Your task to perform on an android device: turn off priority inbox in the gmail app Image 0: 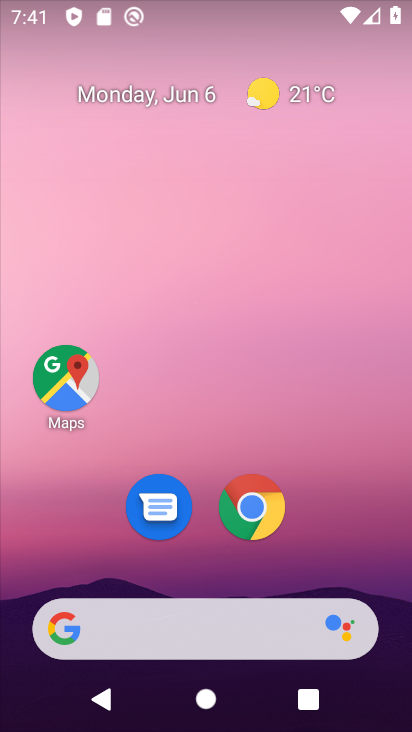
Step 0: drag from (232, 38) to (285, 22)
Your task to perform on an android device: turn off priority inbox in the gmail app Image 1: 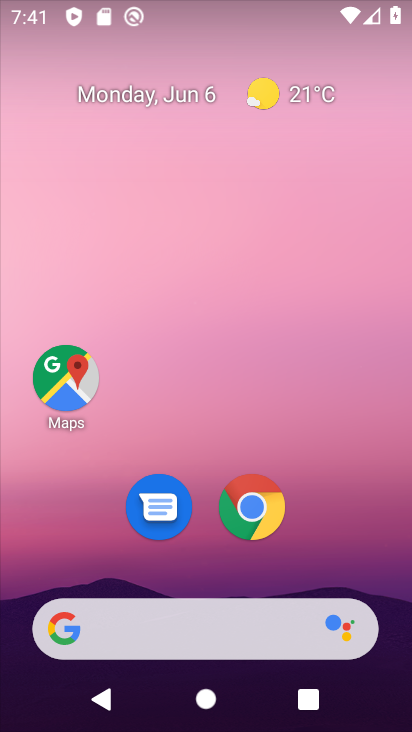
Step 1: drag from (222, 541) to (278, 152)
Your task to perform on an android device: turn off priority inbox in the gmail app Image 2: 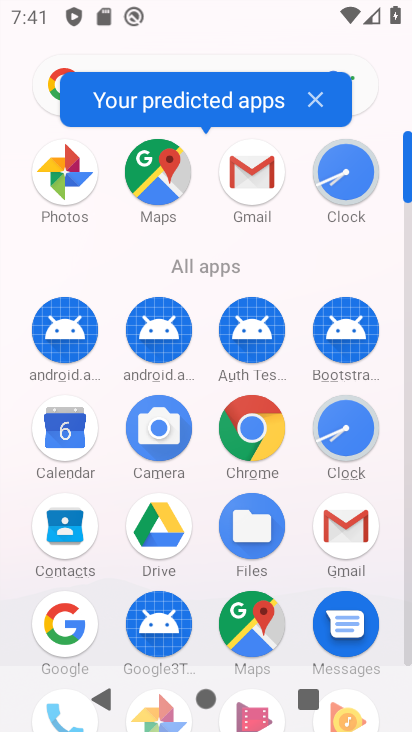
Step 2: click (333, 549)
Your task to perform on an android device: turn off priority inbox in the gmail app Image 3: 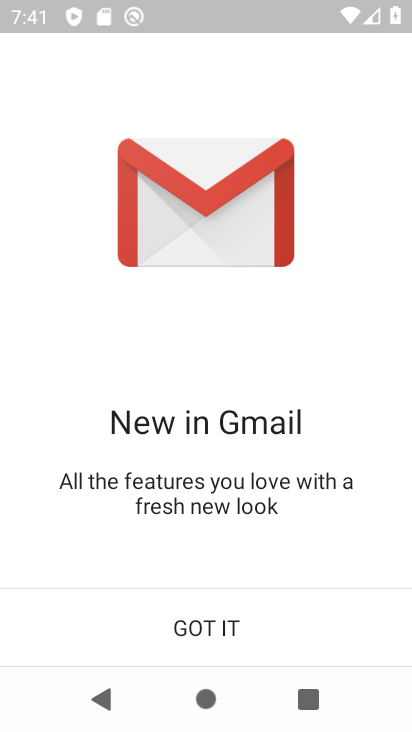
Step 3: click (211, 616)
Your task to perform on an android device: turn off priority inbox in the gmail app Image 4: 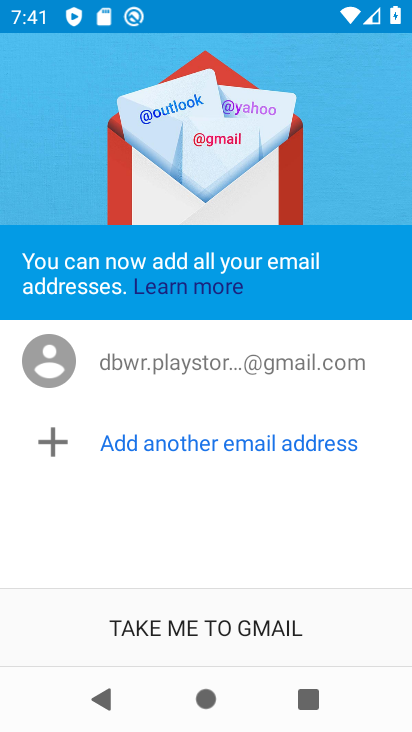
Step 4: click (212, 637)
Your task to perform on an android device: turn off priority inbox in the gmail app Image 5: 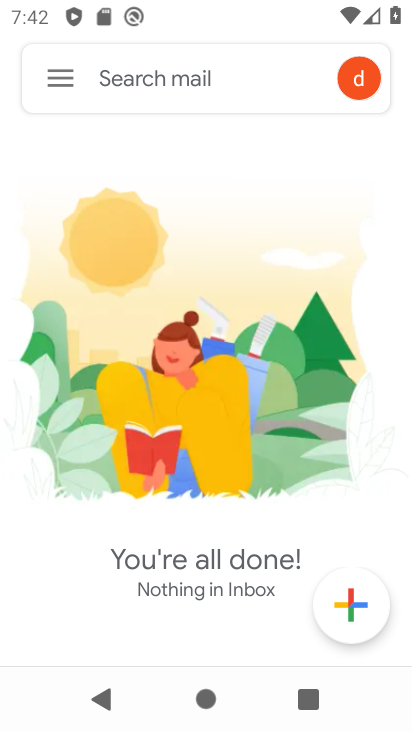
Step 5: click (54, 81)
Your task to perform on an android device: turn off priority inbox in the gmail app Image 6: 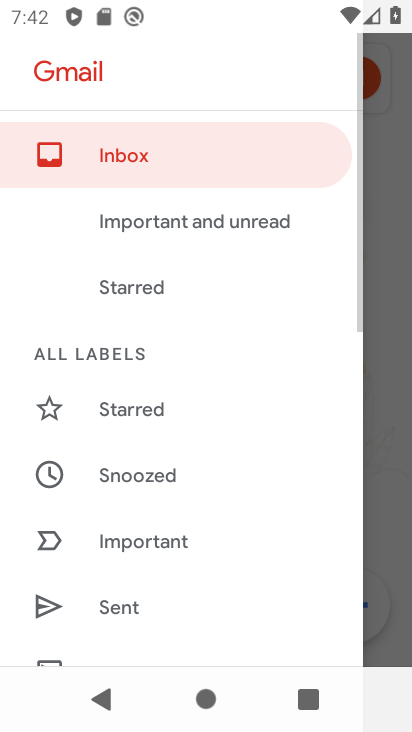
Step 6: drag from (140, 561) to (196, 212)
Your task to perform on an android device: turn off priority inbox in the gmail app Image 7: 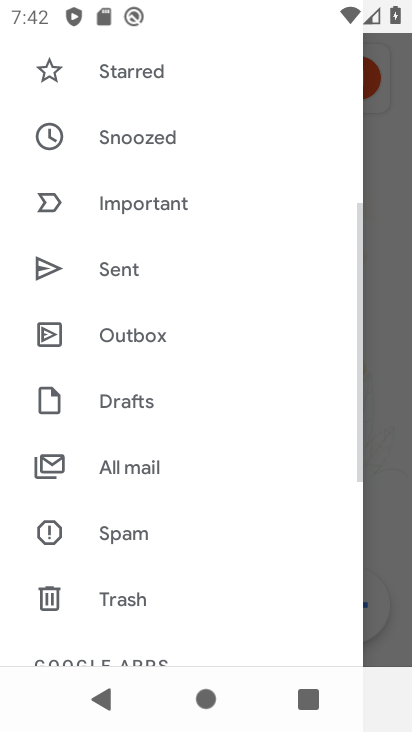
Step 7: drag from (134, 594) to (204, 159)
Your task to perform on an android device: turn off priority inbox in the gmail app Image 8: 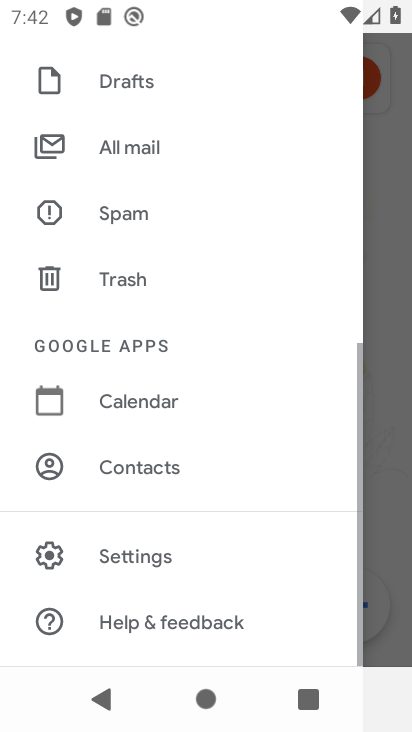
Step 8: click (123, 565)
Your task to perform on an android device: turn off priority inbox in the gmail app Image 9: 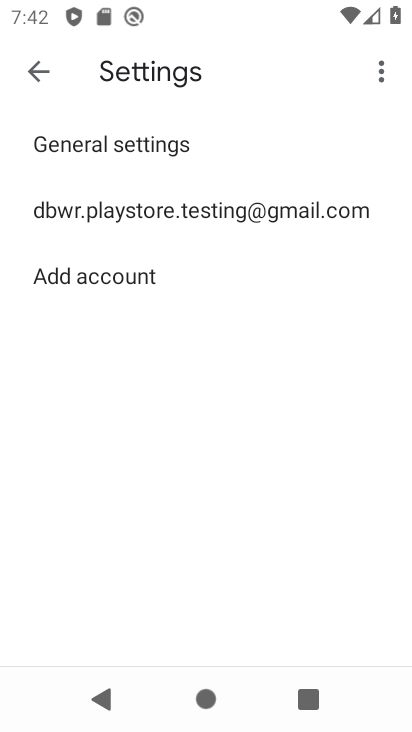
Step 9: click (144, 208)
Your task to perform on an android device: turn off priority inbox in the gmail app Image 10: 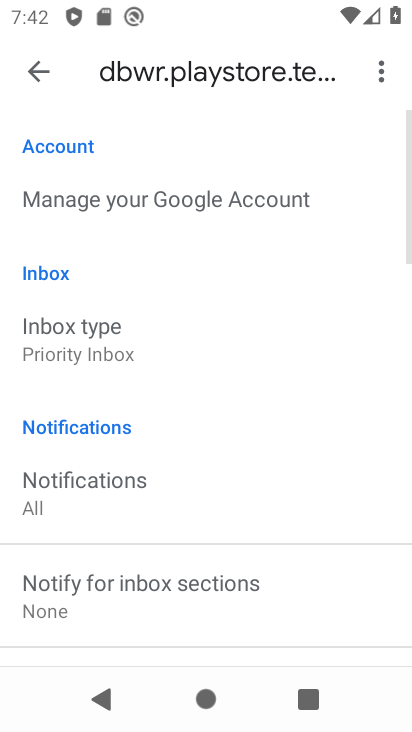
Step 10: click (91, 348)
Your task to perform on an android device: turn off priority inbox in the gmail app Image 11: 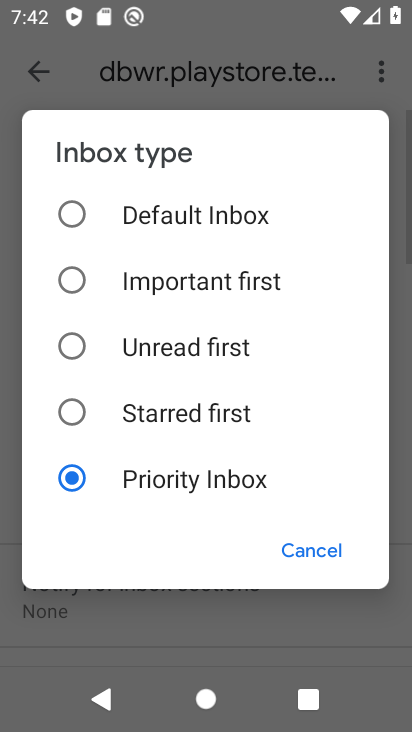
Step 11: click (73, 343)
Your task to perform on an android device: turn off priority inbox in the gmail app Image 12: 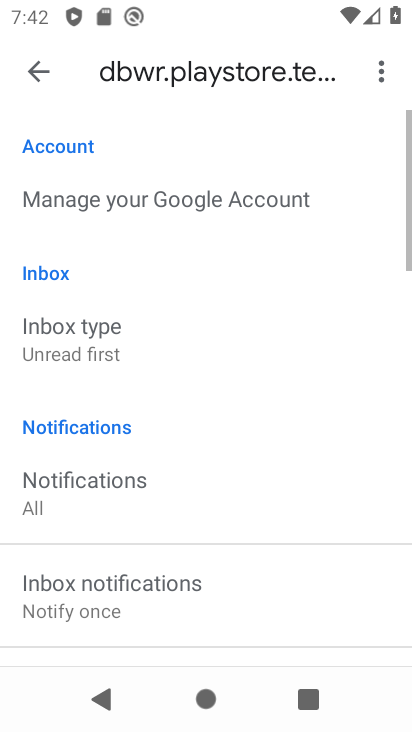
Step 12: task complete